Your task to perform on an android device: toggle sleep mode Image 0: 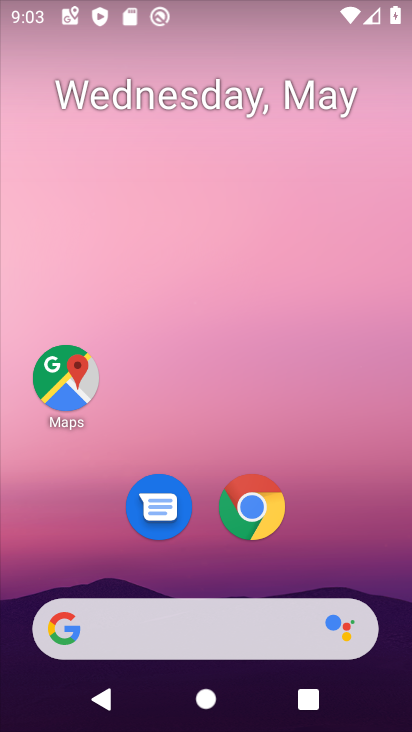
Step 0: drag from (365, 530) to (271, 120)
Your task to perform on an android device: toggle sleep mode Image 1: 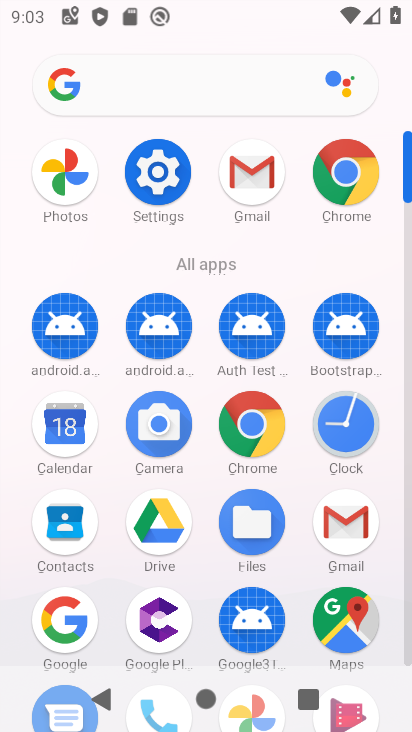
Step 1: click (162, 173)
Your task to perform on an android device: toggle sleep mode Image 2: 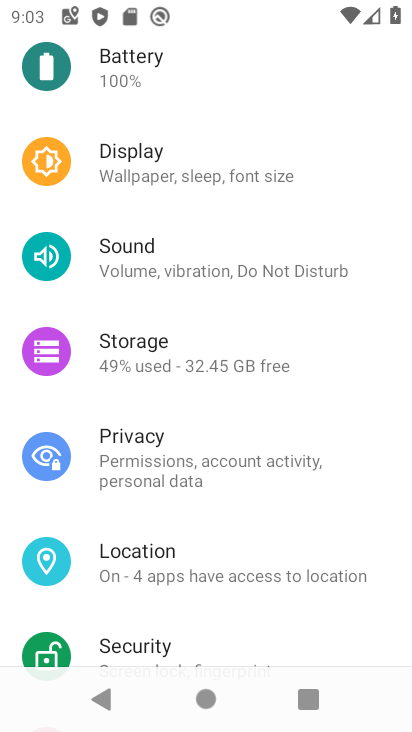
Step 2: drag from (262, 136) to (277, 290)
Your task to perform on an android device: toggle sleep mode Image 3: 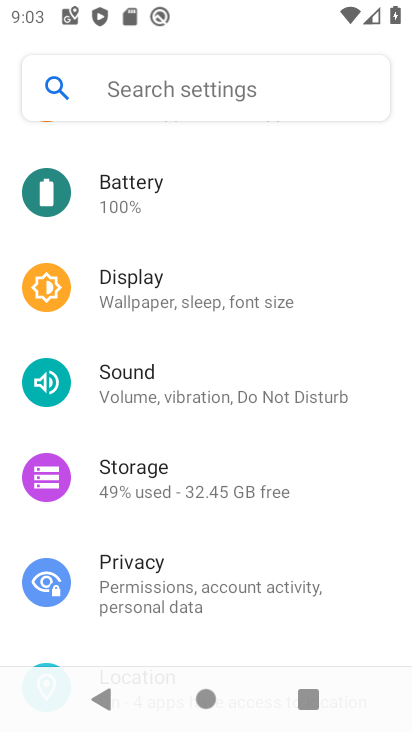
Step 3: click (282, 288)
Your task to perform on an android device: toggle sleep mode Image 4: 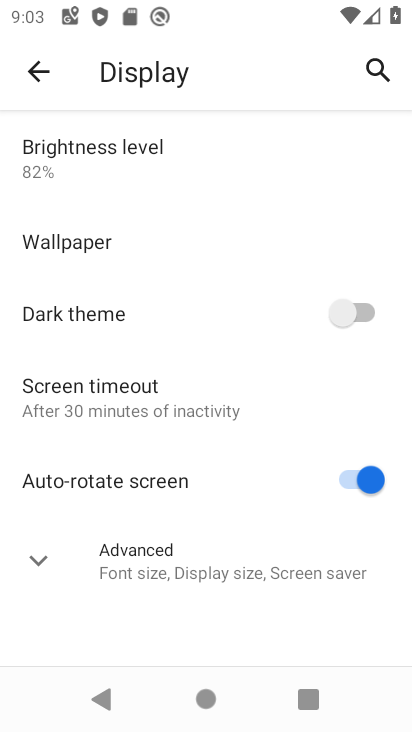
Step 4: click (264, 570)
Your task to perform on an android device: toggle sleep mode Image 5: 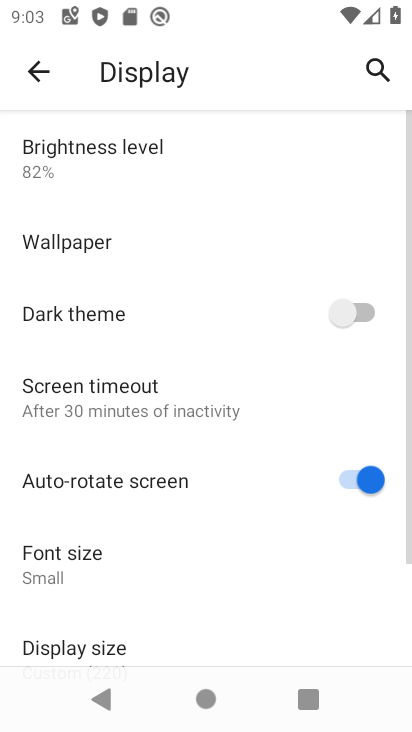
Step 5: task complete